Your task to perform on an android device: change timer sound Image 0: 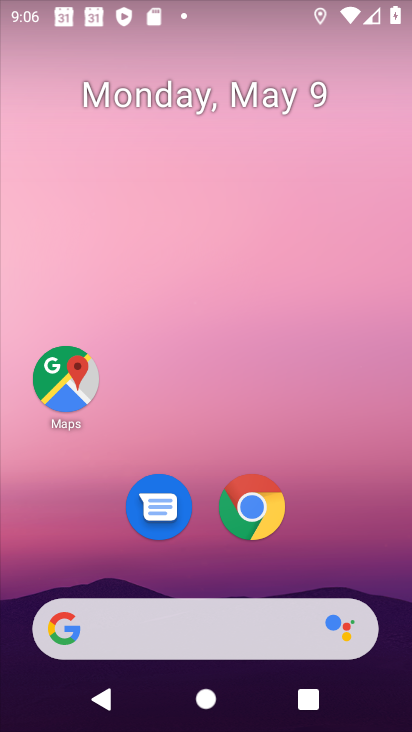
Step 0: drag from (91, 602) to (260, 24)
Your task to perform on an android device: change timer sound Image 1: 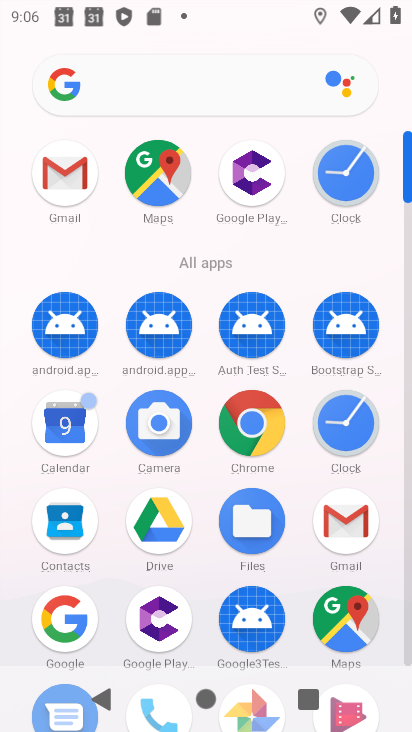
Step 1: click (361, 422)
Your task to perform on an android device: change timer sound Image 2: 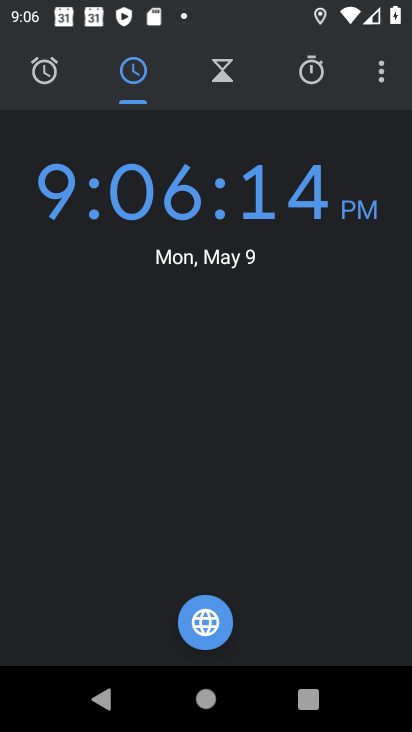
Step 2: click (381, 76)
Your task to perform on an android device: change timer sound Image 3: 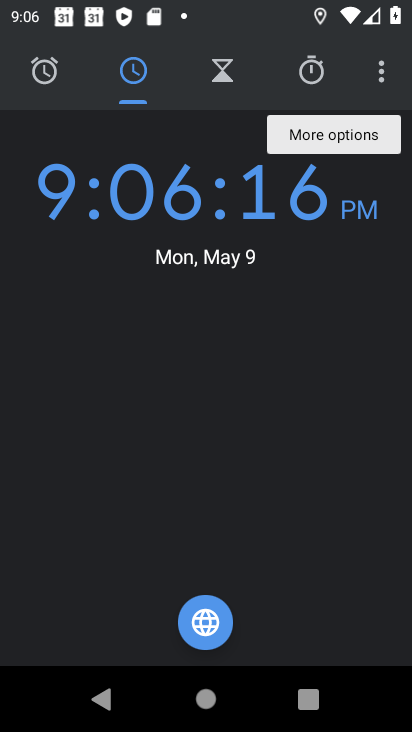
Step 3: click (400, 93)
Your task to perform on an android device: change timer sound Image 4: 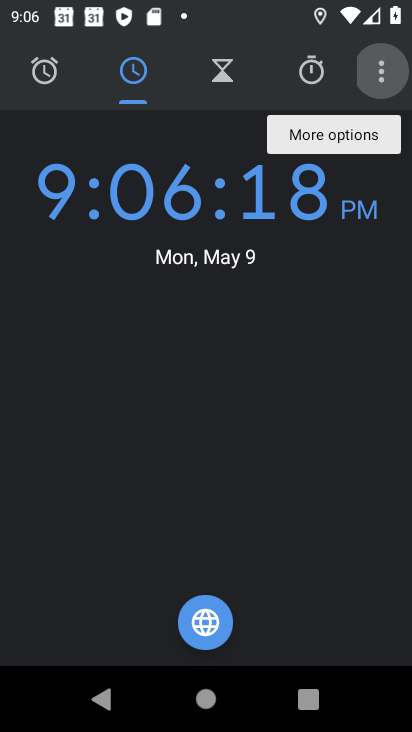
Step 4: click (386, 75)
Your task to perform on an android device: change timer sound Image 5: 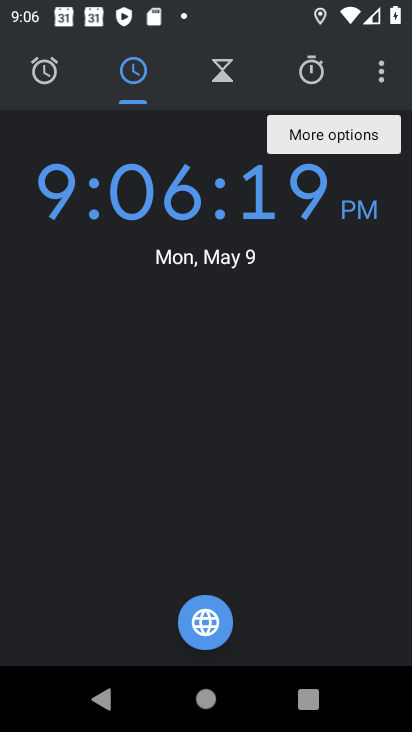
Step 5: click (308, 138)
Your task to perform on an android device: change timer sound Image 6: 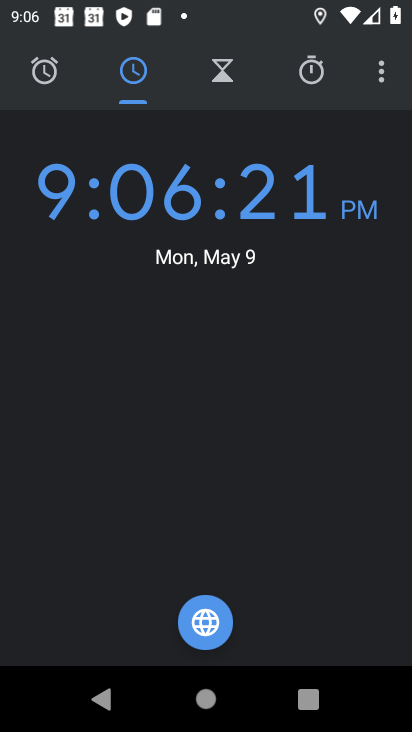
Step 6: click (384, 77)
Your task to perform on an android device: change timer sound Image 7: 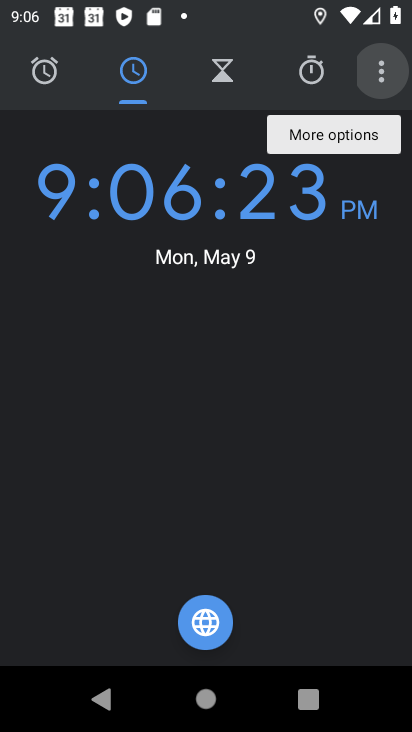
Step 7: click (384, 91)
Your task to perform on an android device: change timer sound Image 8: 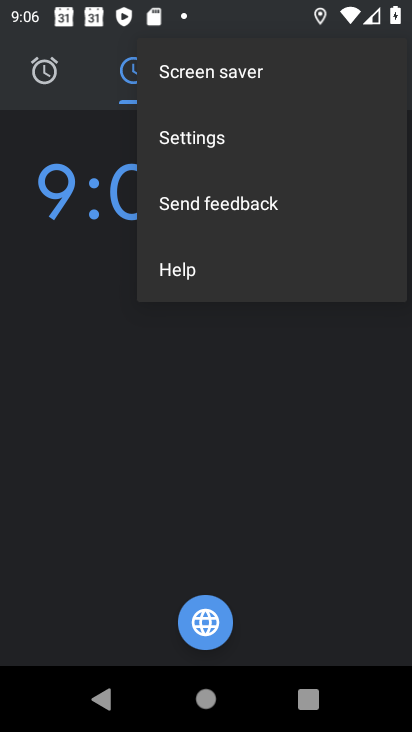
Step 8: click (247, 124)
Your task to perform on an android device: change timer sound Image 9: 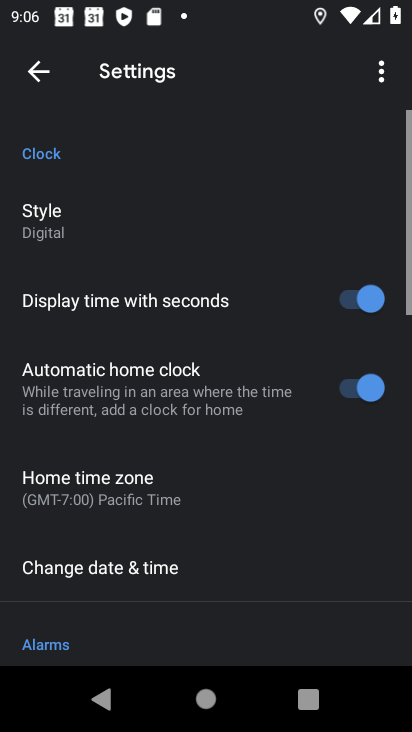
Step 9: drag from (210, 543) to (303, 63)
Your task to perform on an android device: change timer sound Image 10: 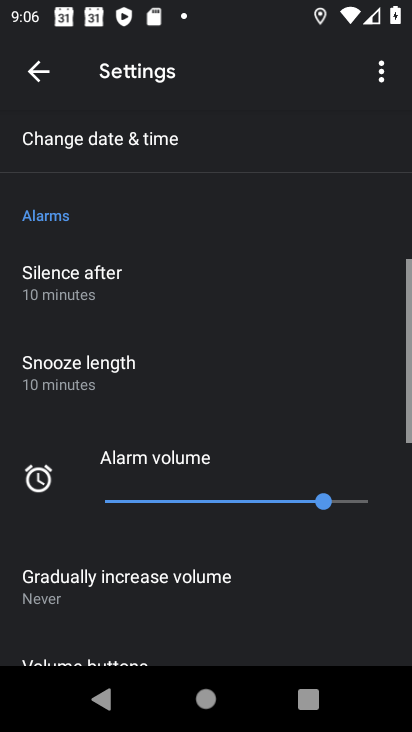
Step 10: drag from (140, 603) to (258, 119)
Your task to perform on an android device: change timer sound Image 11: 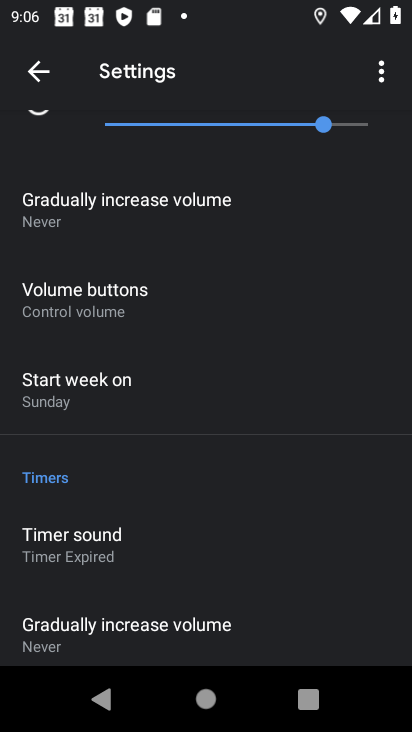
Step 11: click (124, 536)
Your task to perform on an android device: change timer sound Image 12: 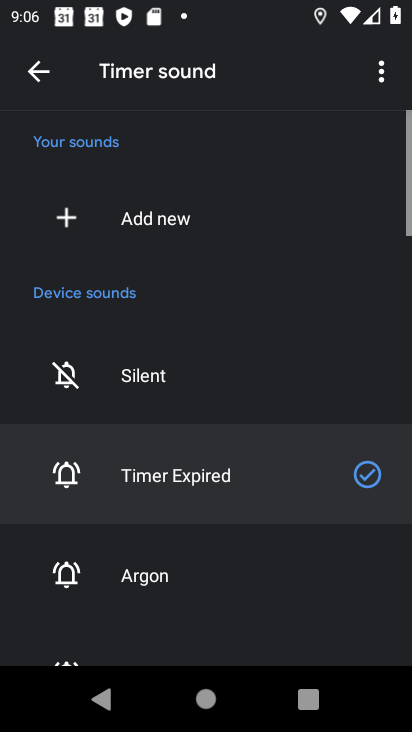
Step 12: drag from (253, 627) to (383, 89)
Your task to perform on an android device: change timer sound Image 13: 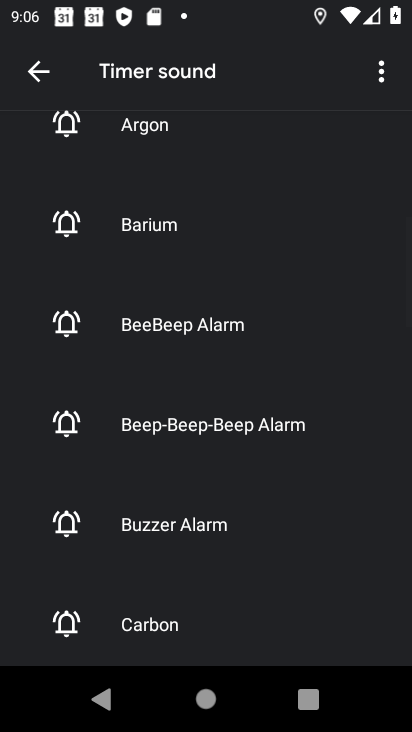
Step 13: click (245, 529)
Your task to perform on an android device: change timer sound Image 14: 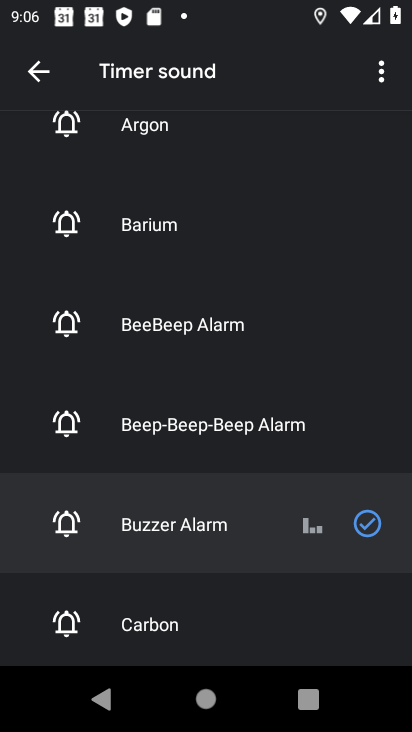
Step 14: task complete